Your task to perform on an android device: create a new album in the google photos Image 0: 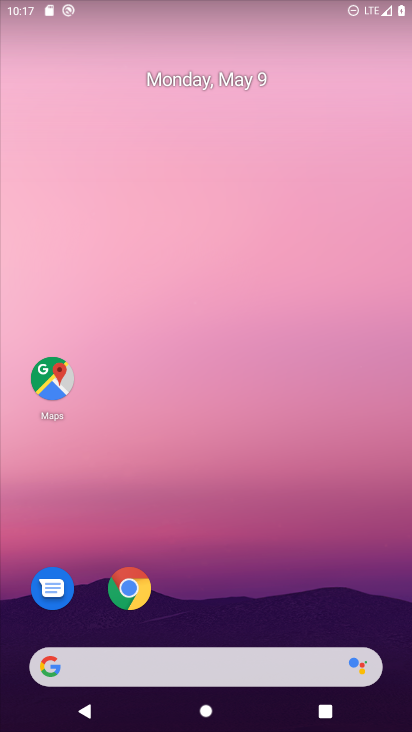
Step 0: drag from (210, 596) to (254, 144)
Your task to perform on an android device: create a new album in the google photos Image 1: 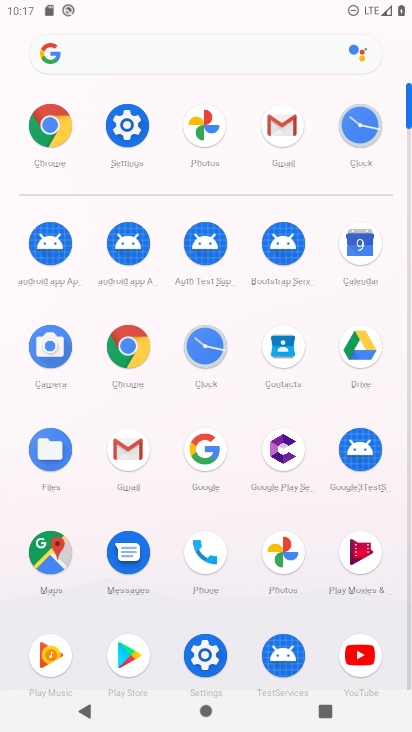
Step 1: click (206, 119)
Your task to perform on an android device: create a new album in the google photos Image 2: 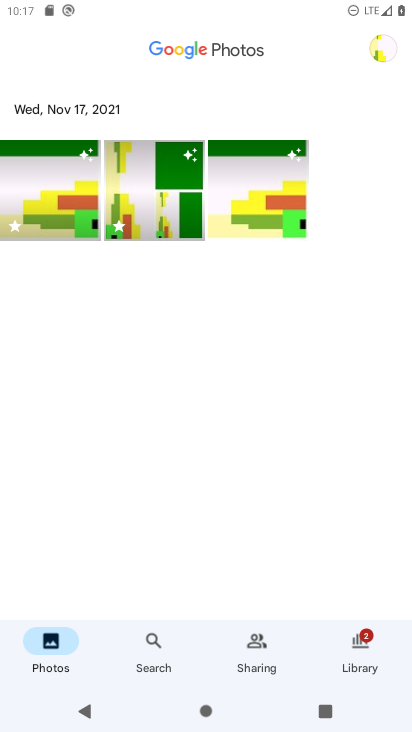
Step 2: click (379, 52)
Your task to perform on an android device: create a new album in the google photos Image 3: 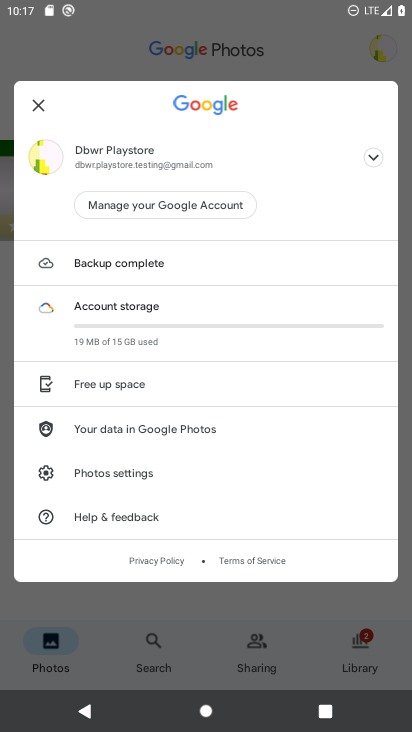
Step 3: task complete